Your task to perform on an android device: Toggle the flashlight Image 0: 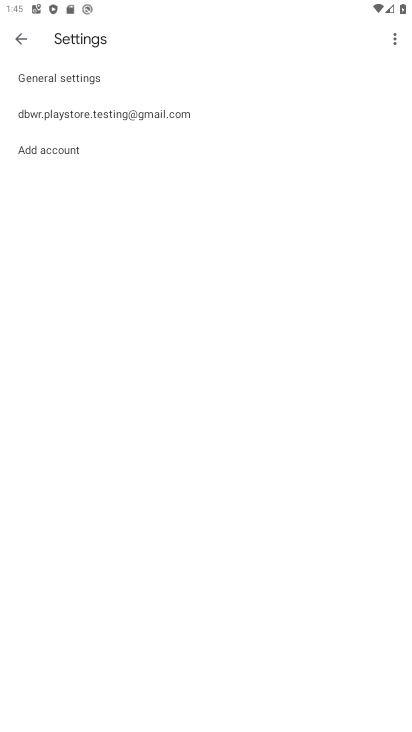
Step 0: press home button
Your task to perform on an android device: Toggle the flashlight Image 1: 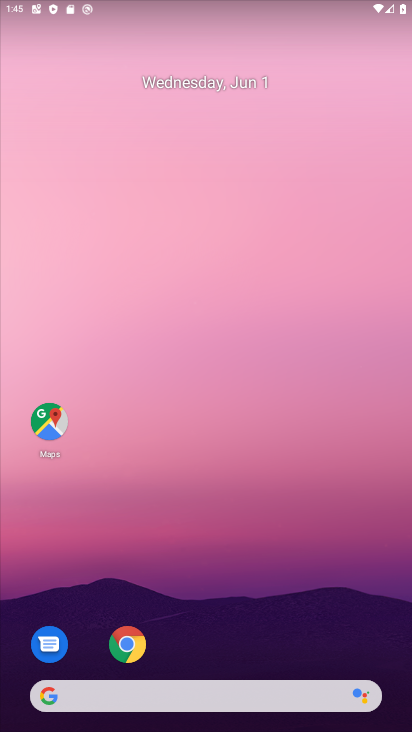
Step 1: drag from (221, 642) to (289, 205)
Your task to perform on an android device: Toggle the flashlight Image 2: 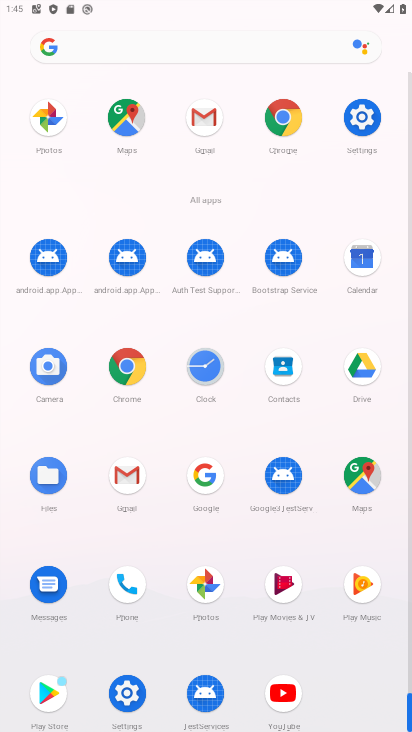
Step 2: click (361, 122)
Your task to perform on an android device: Toggle the flashlight Image 3: 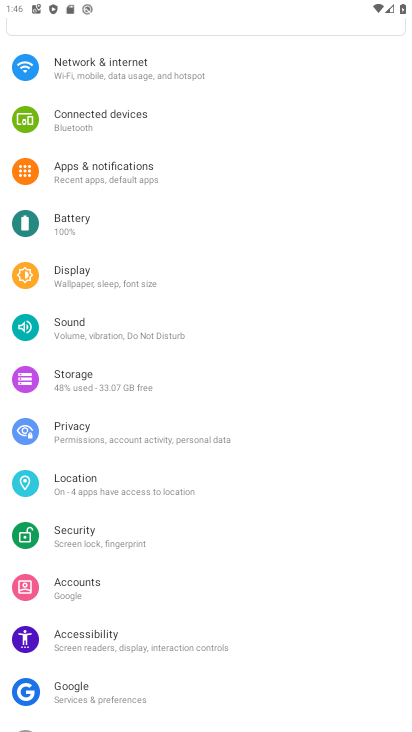
Step 3: click (115, 282)
Your task to perform on an android device: Toggle the flashlight Image 4: 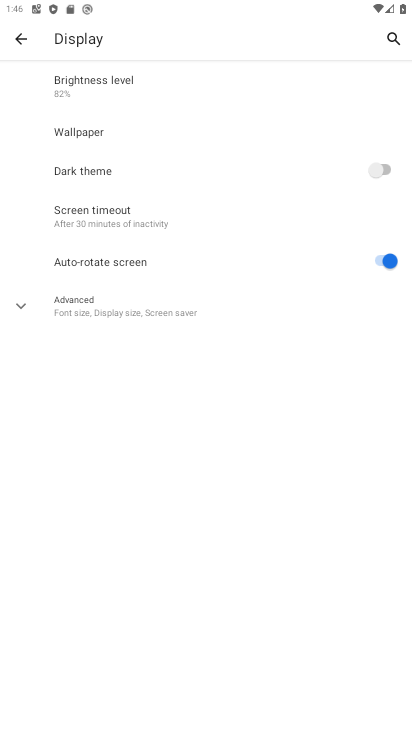
Step 4: task complete